Your task to perform on an android device: Open ESPN.com Image 0: 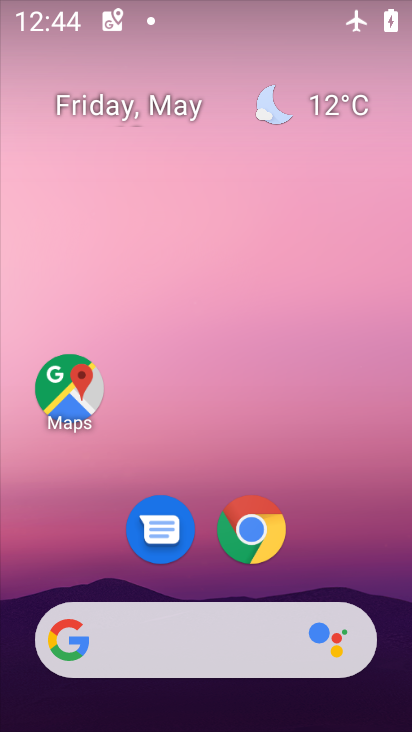
Step 0: drag from (280, 540) to (280, 261)
Your task to perform on an android device: Open ESPN.com Image 1: 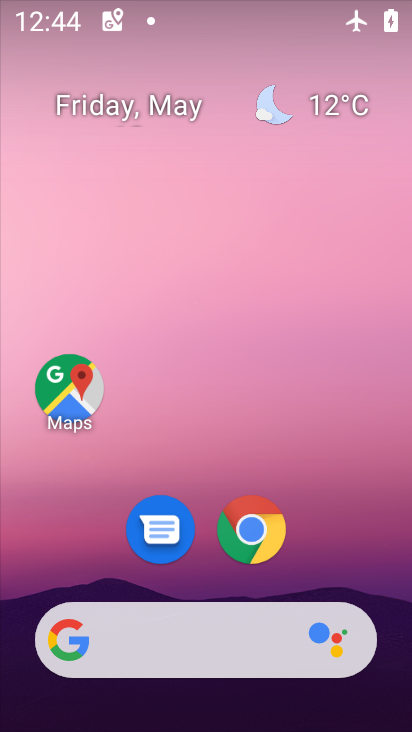
Step 1: drag from (273, 521) to (318, 242)
Your task to perform on an android device: Open ESPN.com Image 2: 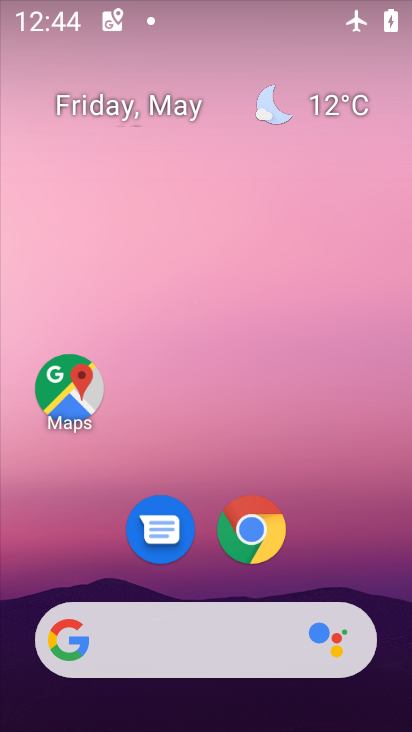
Step 2: drag from (252, 587) to (290, 188)
Your task to perform on an android device: Open ESPN.com Image 3: 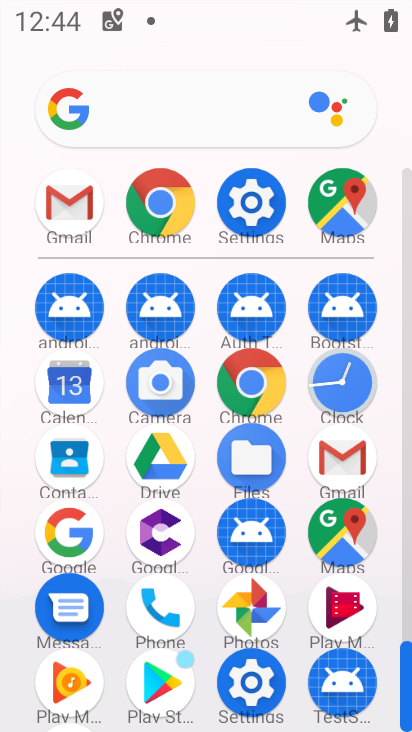
Step 3: click (142, 195)
Your task to perform on an android device: Open ESPN.com Image 4: 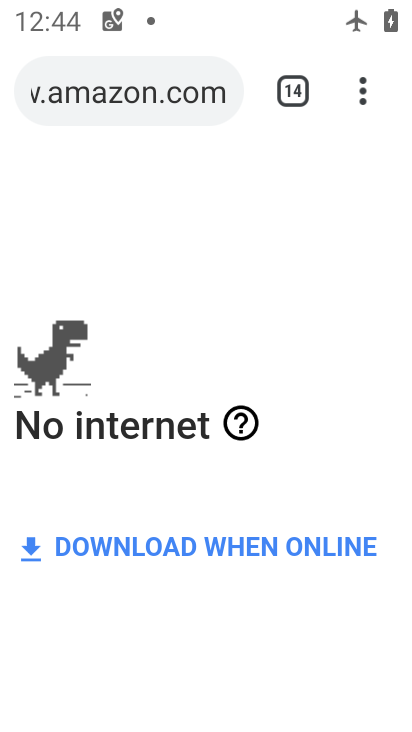
Step 4: click (347, 72)
Your task to perform on an android device: Open ESPN.com Image 5: 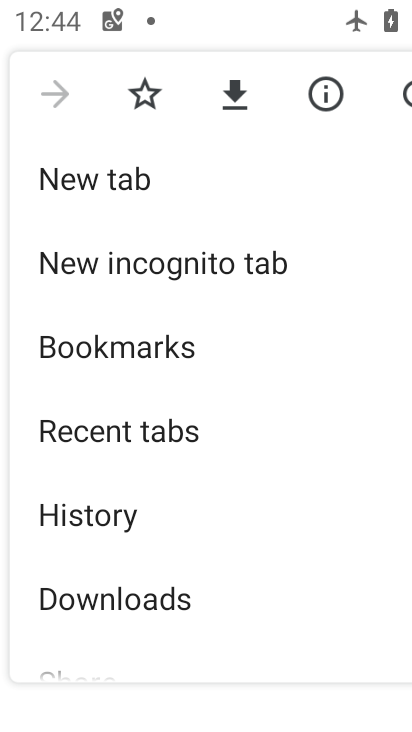
Step 5: click (113, 167)
Your task to perform on an android device: Open ESPN.com Image 6: 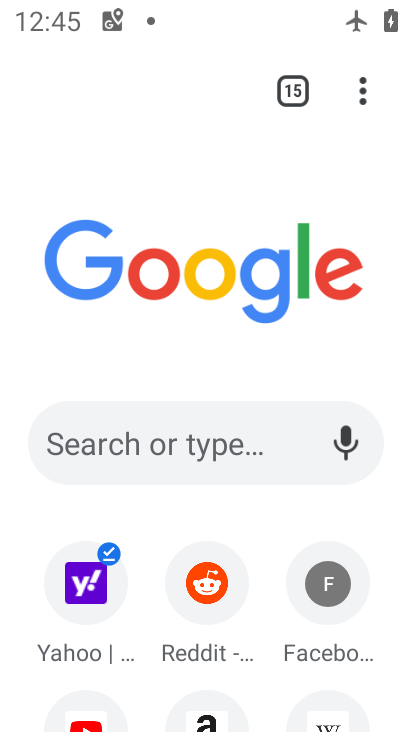
Step 6: click (223, 449)
Your task to perform on an android device: Open ESPN.com Image 7: 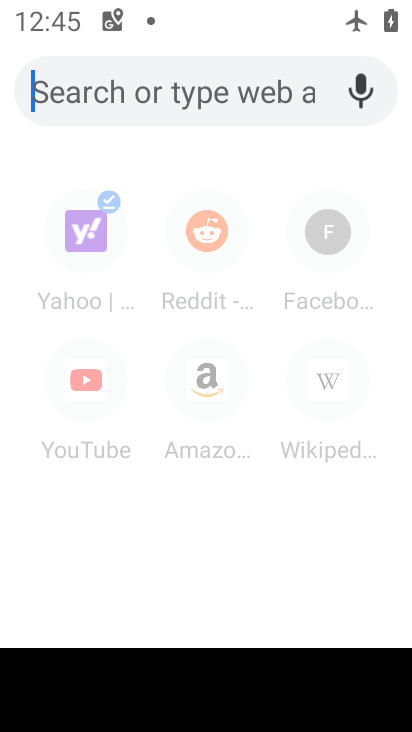
Step 7: type " ESPN.com"
Your task to perform on an android device: Open ESPN.com Image 8: 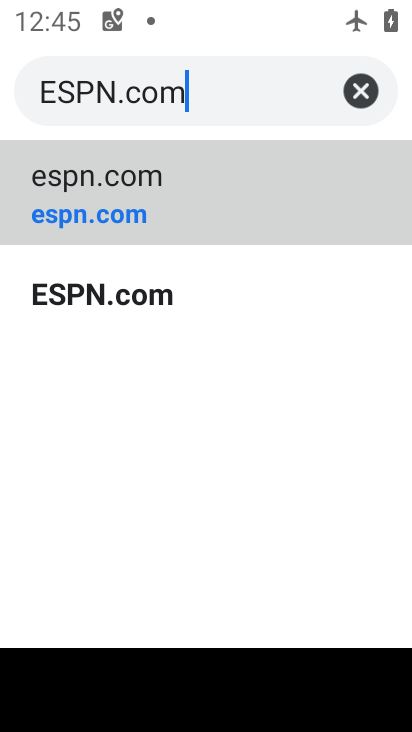
Step 8: click (78, 169)
Your task to perform on an android device: Open ESPN.com Image 9: 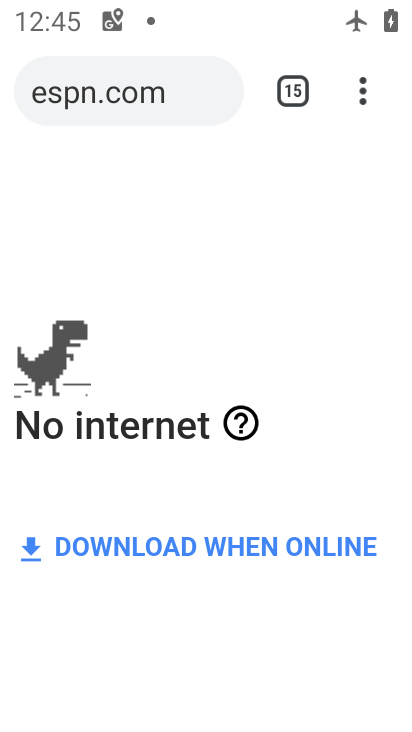
Step 9: task complete